Your task to perform on an android device: Go to Yahoo.com Image 0: 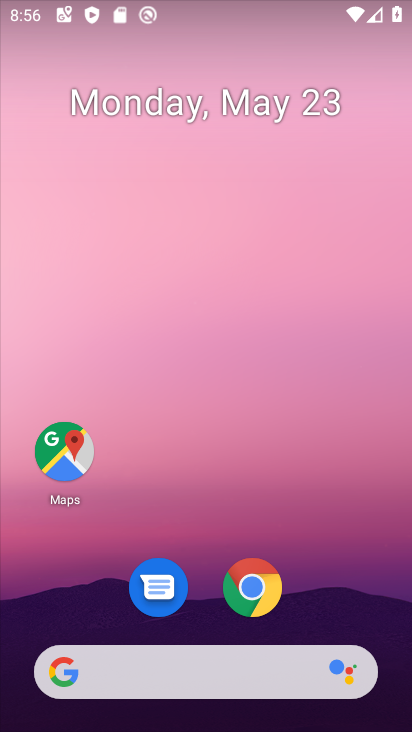
Step 0: click (254, 572)
Your task to perform on an android device: Go to Yahoo.com Image 1: 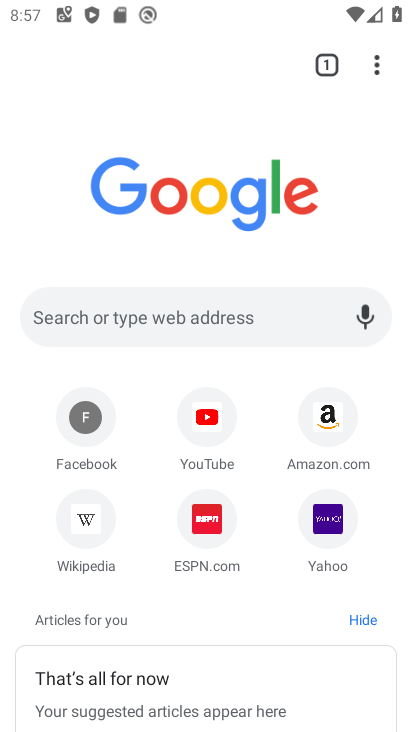
Step 1: click (305, 513)
Your task to perform on an android device: Go to Yahoo.com Image 2: 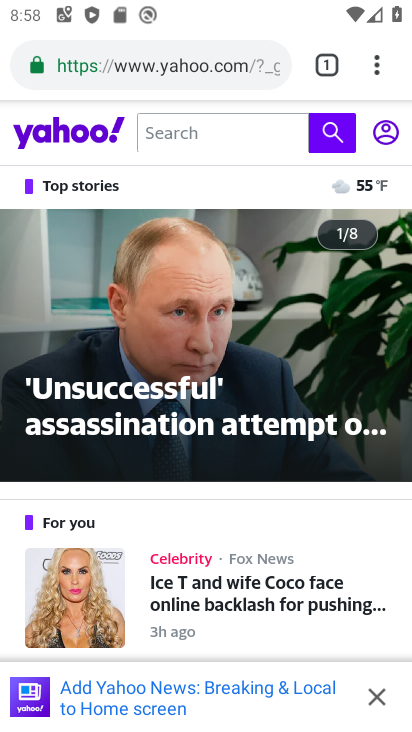
Step 2: task complete